Your task to perform on an android device: Go to battery settings Image 0: 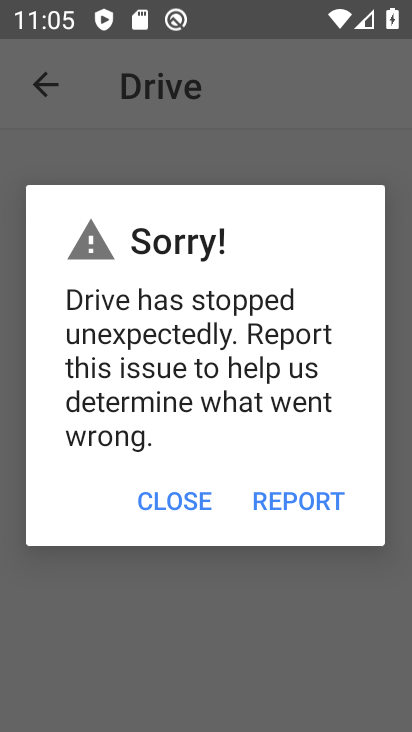
Step 0: press home button
Your task to perform on an android device: Go to battery settings Image 1: 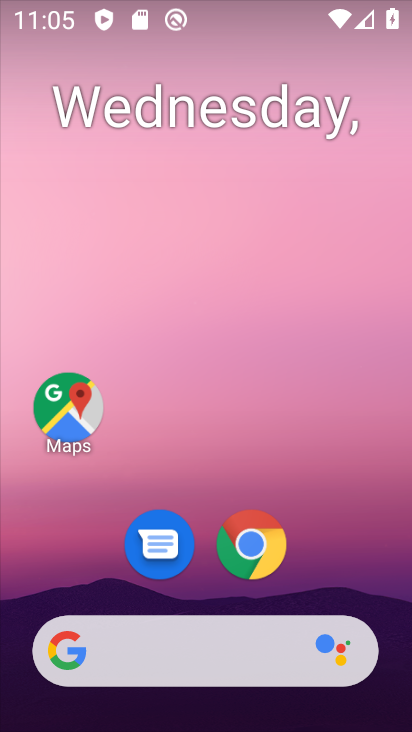
Step 1: drag from (206, 338) to (220, 6)
Your task to perform on an android device: Go to battery settings Image 2: 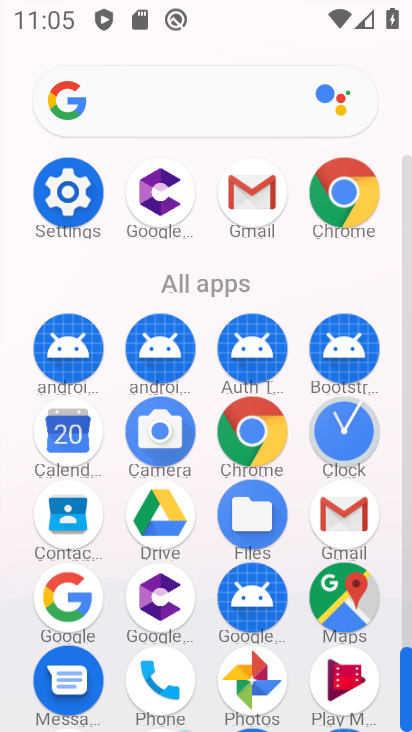
Step 2: click (75, 204)
Your task to perform on an android device: Go to battery settings Image 3: 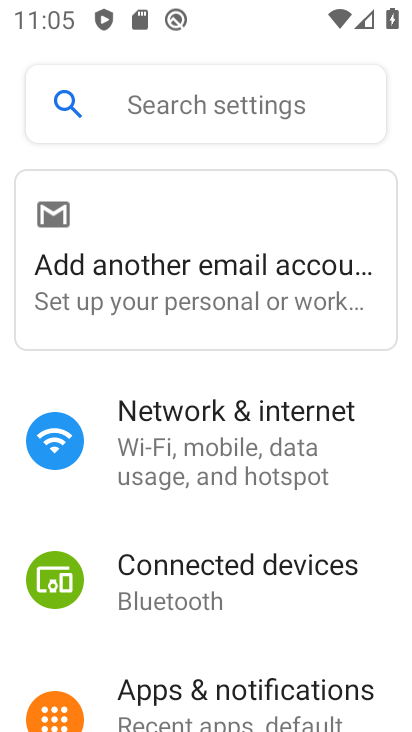
Step 3: drag from (159, 527) to (178, 255)
Your task to perform on an android device: Go to battery settings Image 4: 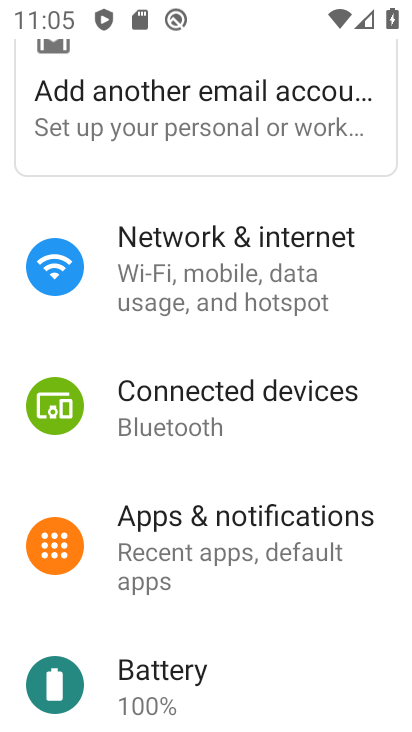
Step 4: click (200, 672)
Your task to perform on an android device: Go to battery settings Image 5: 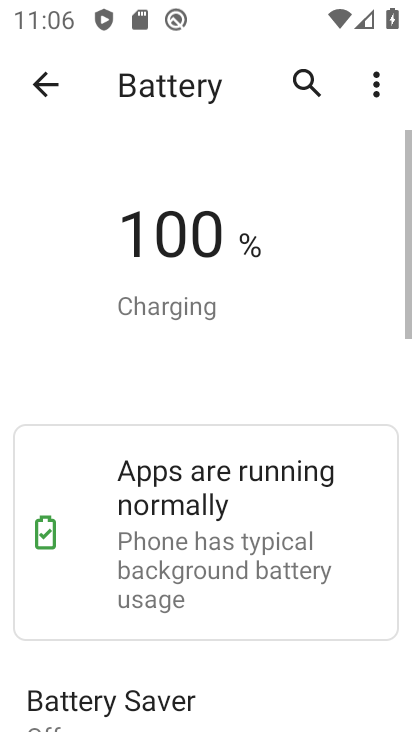
Step 5: task complete